Your task to perform on an android device: Open calendar and show me the second week of next month Image 0: 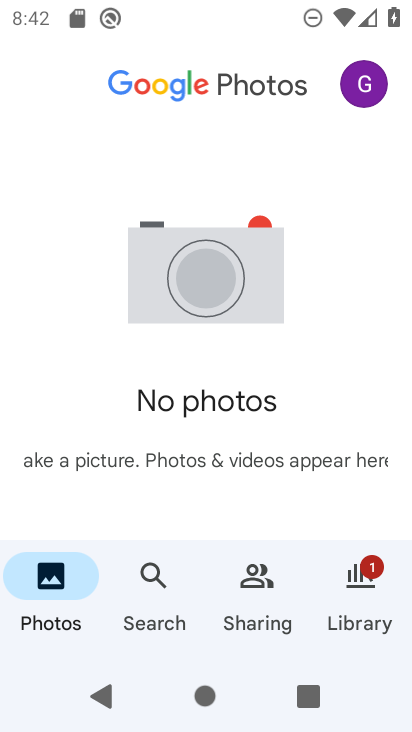
Step 0: press home button
Your task to perform on an android device: Open calendar and show me the second week of next month Image 1: 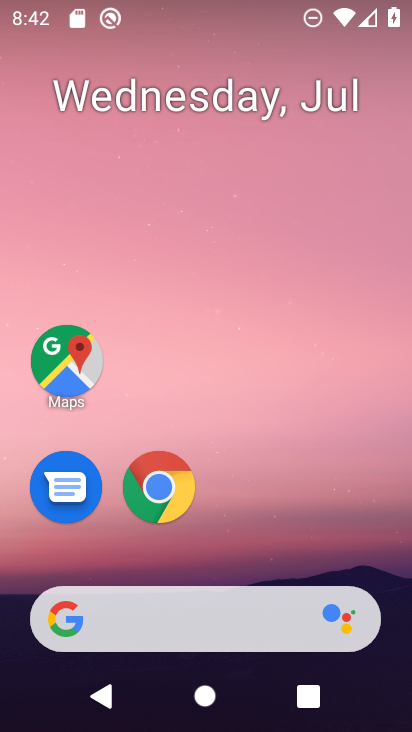
Step 1: drag from (349, 534) to (350, 92)
Your task to perform on an android device: Open calendar and show me the second week of next month Image 2: 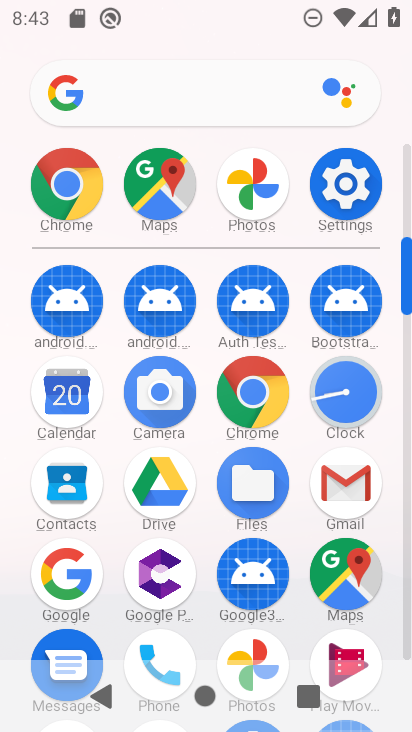
Step 2: click (76, 399)
Your task to perform on an android device: Open calendar and show me the second week of next month Image 3: 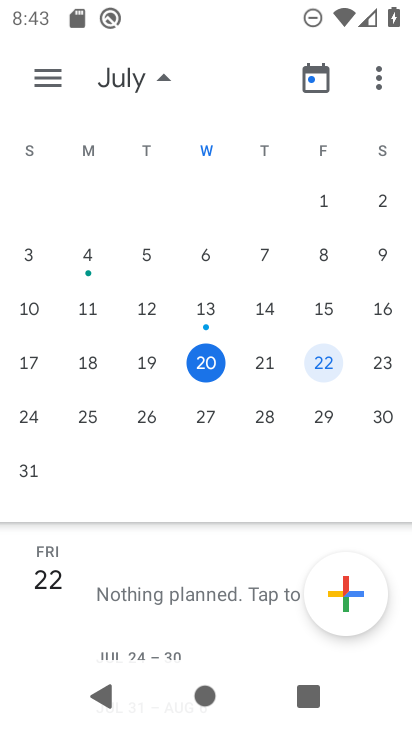
Step 3: drag from (404, 225) to (101, 212)
Your task to perform on an android device: Open calendar and show me the second week of next month Image 4: 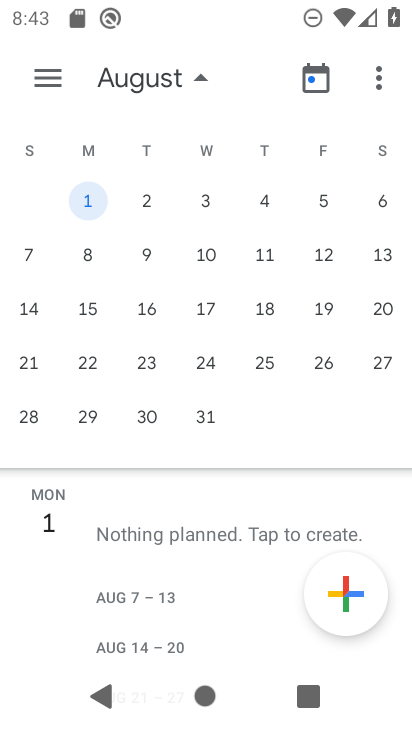
Step 4: click (83, 255)
Your task to perform on an android device: Open calendar and show me the second week of next month Image 5: 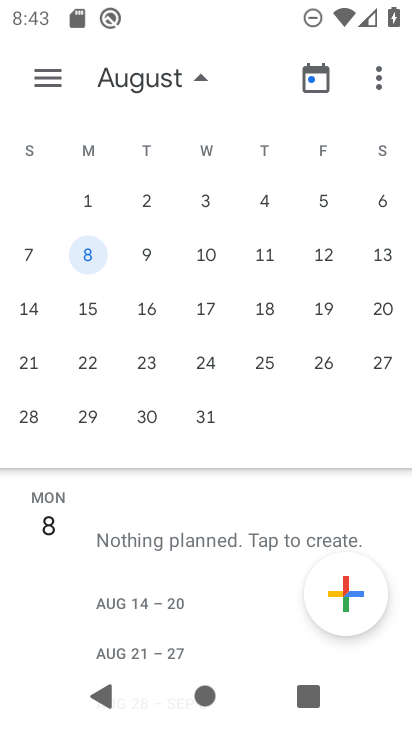
Step 5: task complete